Your task to perform on an android device: empty trash in google photos Image 0: 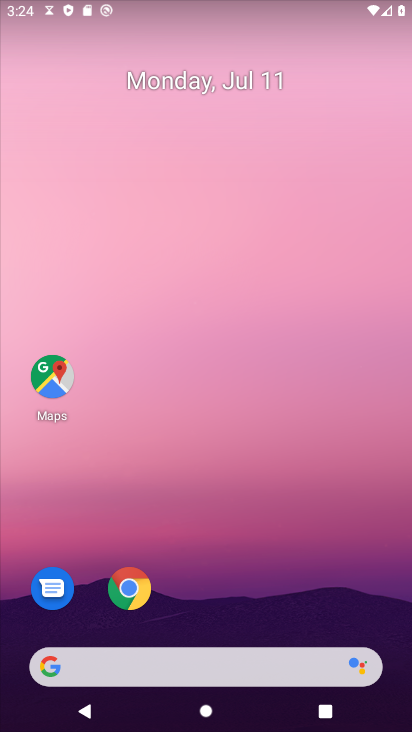
Step 0: drag from (267, 541) to (267, 117)
Your task to perform on an android device: empty trash in google photos Image 1: 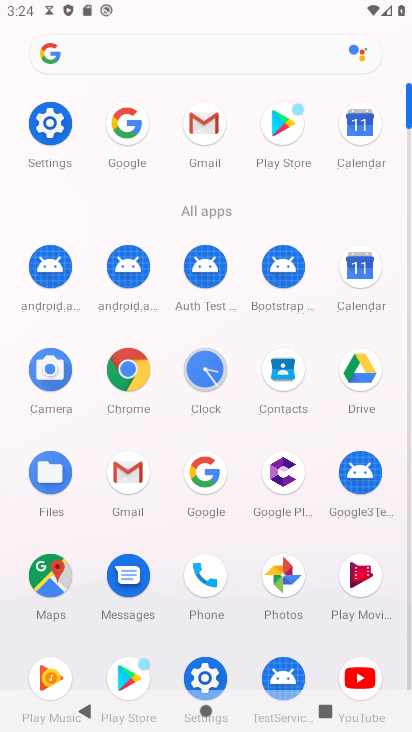
Step 1: click (281, 577)
Your task to perform on an android device: empty trash in google photos Image 2: 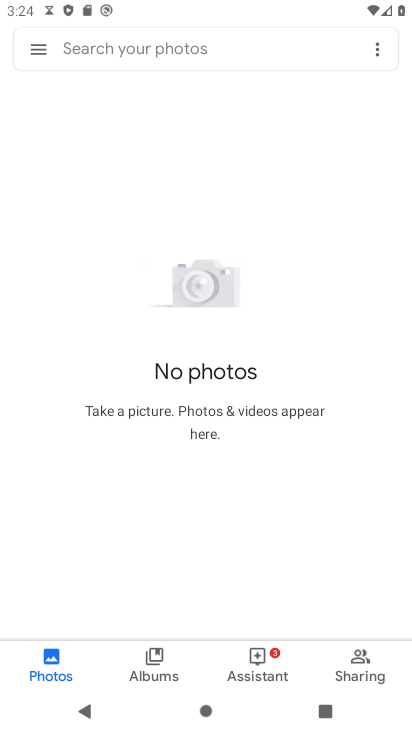
Step 2: click (36, 45)
Your task to perform on an android device: empty trash in google photos Image 3: 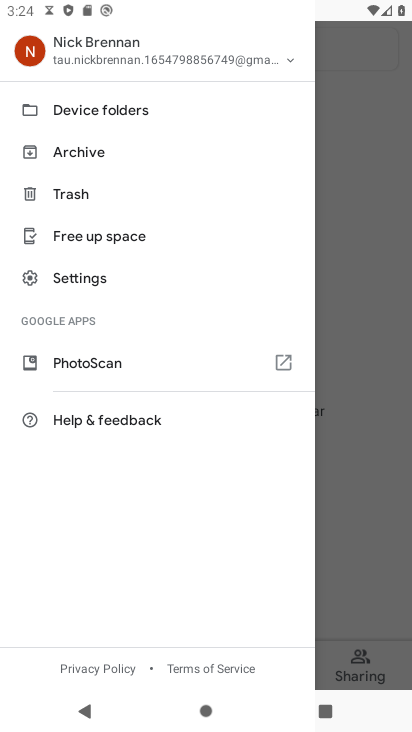
Step 3: click (117, 201)
Your task to perform on an android device: empty trash in google photos Image 4: 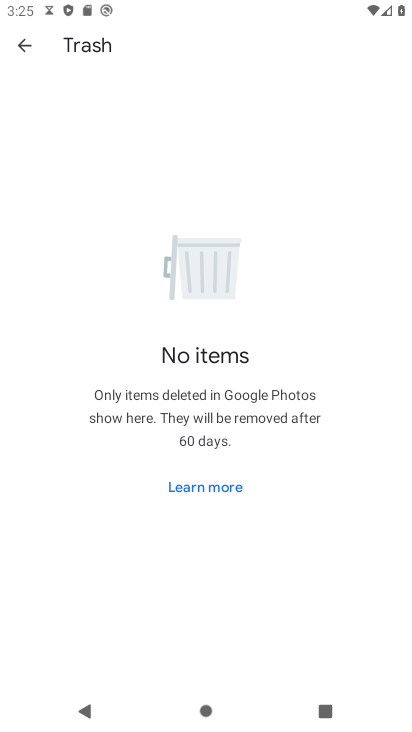
Step 4: task complete